Your task to perform on an android device: open app "Mercado Libre" Image 0: 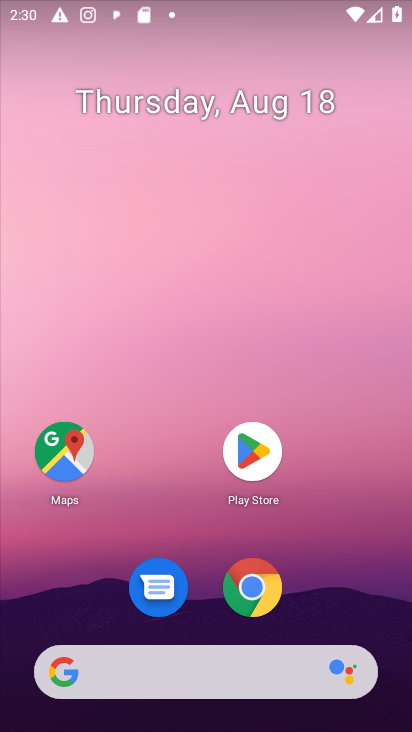
Step 0: click (253, 450)
Your task to perform on an android device: open app "Mercado Libre" Image 1: 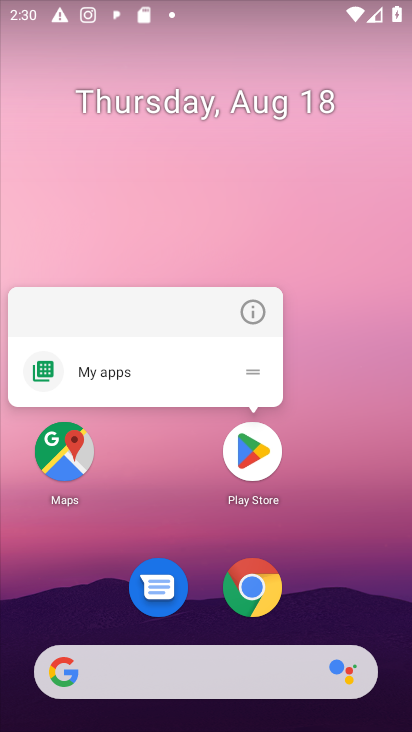
Step 1: click (253, 453)
Your task to perform on an android device: open app "Mercado Libre" Image 2: 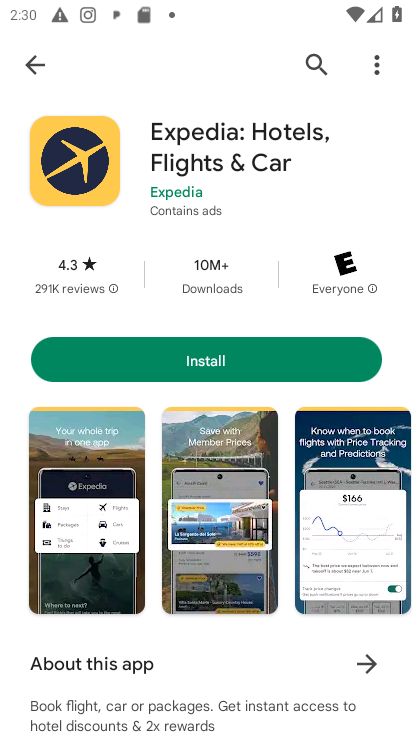
Step 2: click (321, 58)
Your task to perform on an android device: open app "Mercado Libre" Image 3: 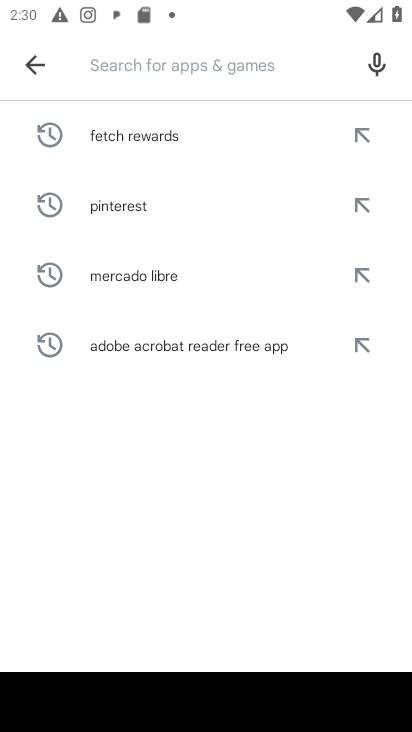
Step 3: type "Mercado Libre"
Your task to perform on an android device: open app "Mercado Libre" Image 4: 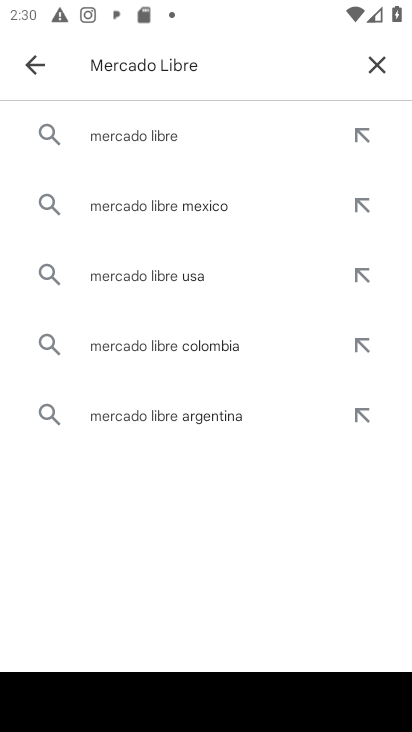
Step 4: click (167, 143)
Your task to perform on an android device: open app "Mercado Libre" Image 5: 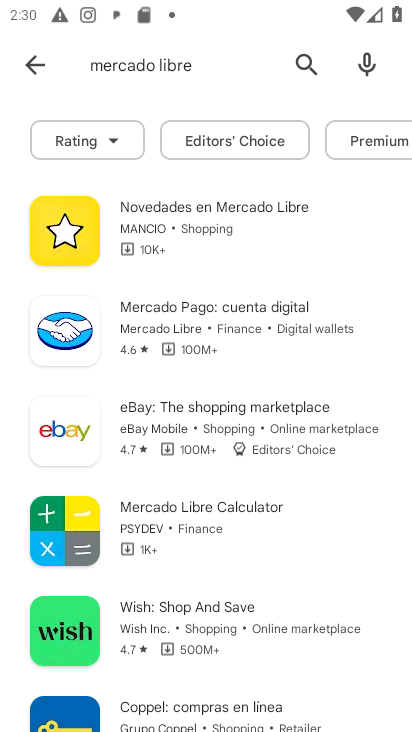
Step 5: task complete